Your task to perform on an android device: Open Google Chrome and open the bookmarks view Image 0: 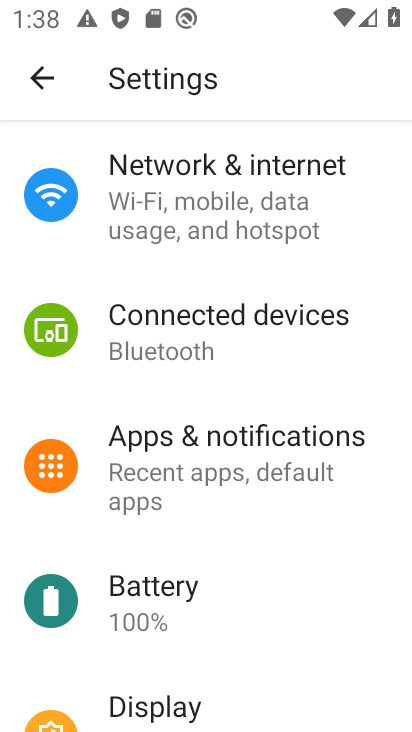
Step 0: press home button
Your task to perform on an android device: Open Google Chrome and open the bookmarks view Image 1: 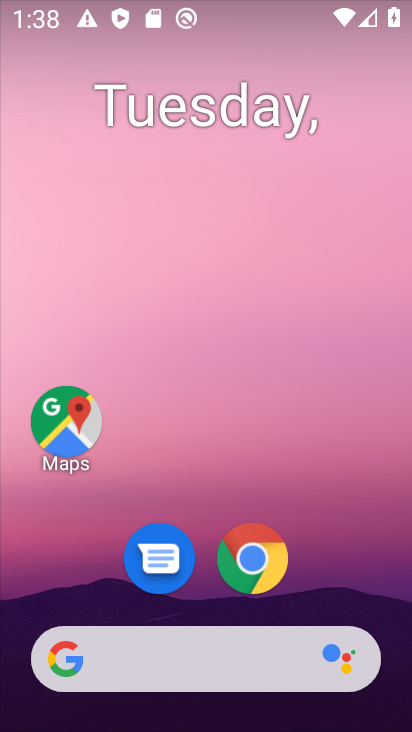
Step 1: click (269, 578)
Your task to perform on an android device: Open Google Chrome and open the bookmarks view Image 2: 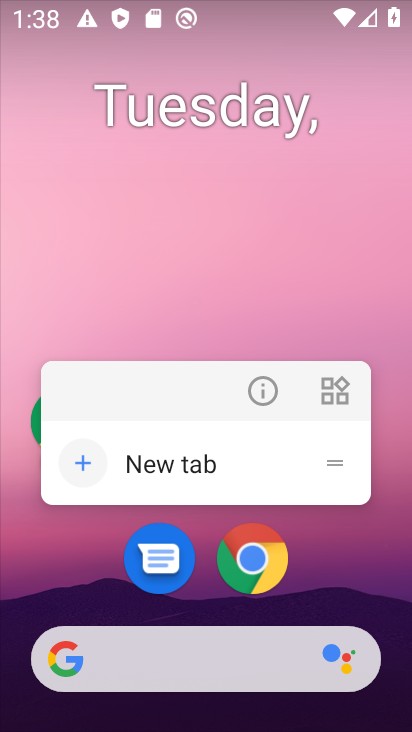
Step 2: click (269, 578)
Your task to perform on an android device: Open Google Chrome and open the bookmarks view Image 3: 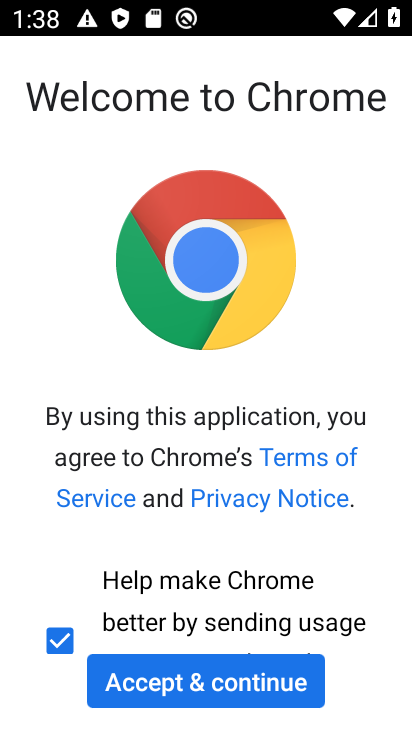
Step 3: click (264, 665)
Your task to perform on an android device: Open Google Chrome and open the bookmarks view Image 4: 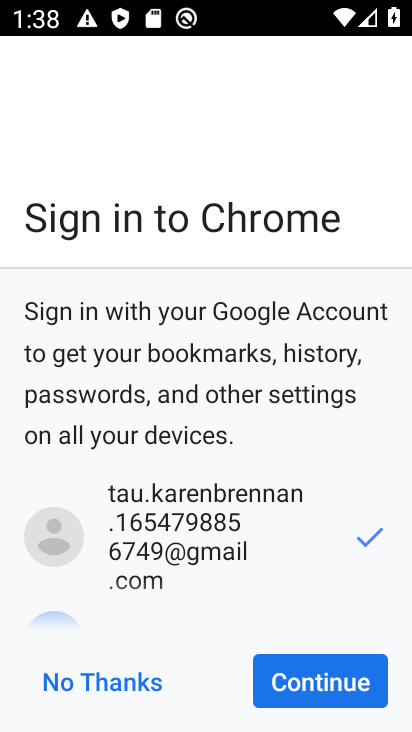
Step 4: click (286, 686)
Your task to perform on an android device: Open Google Chrome and open the bookmarks view Image 5: 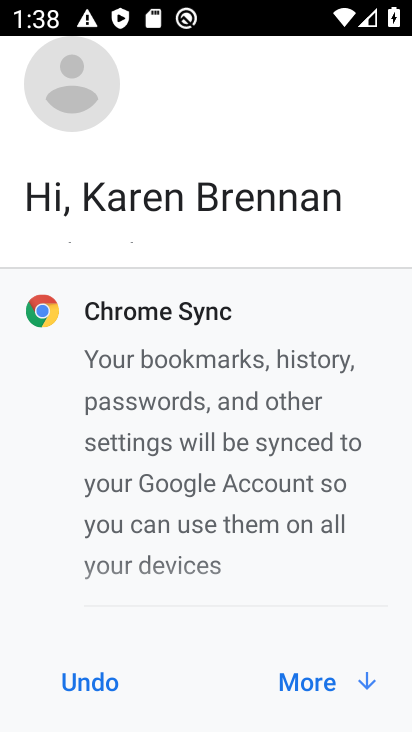
Step 5: click (314, 694)
Your task to perform on an android device: Open Google Chrome and open the bookmarks view Image 6: 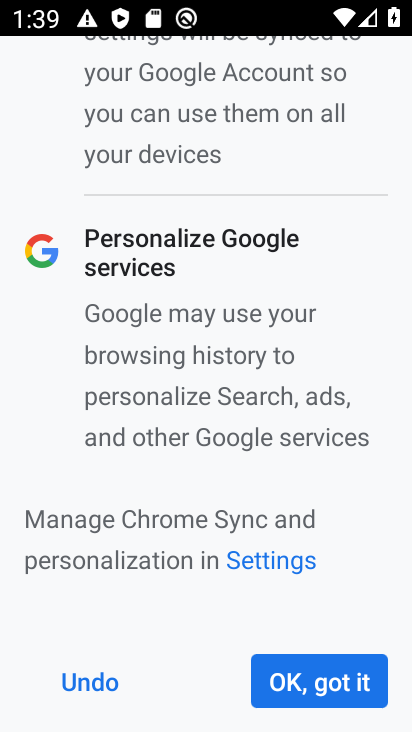
Step 6: click (361, 668)
Your task to perform on an android device: Open Google Chrome and open the bookmarks view Image 7: 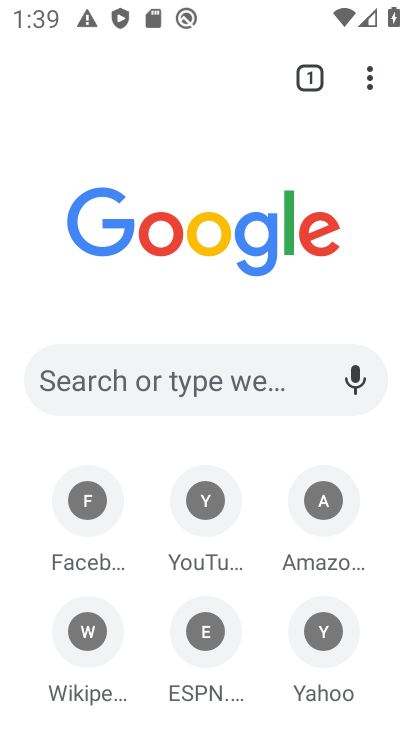
Step 7: click (368, 71)
Your task to perform on an android device: Open Google Chrome and open the bookmarks view Image 8: 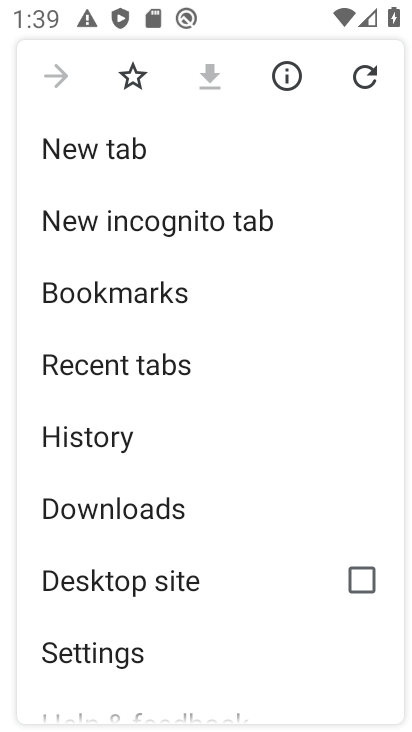
Step 8: click (132, 296)
Your task to perform on an android device: Open Google Chrome and open the bookmarks view Image 9: 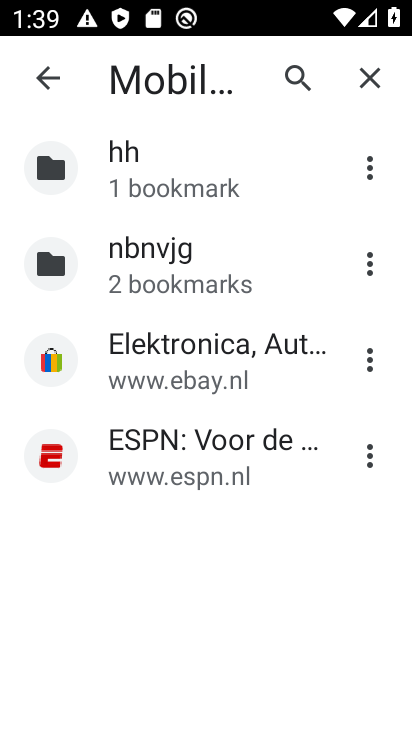
Step 9: task complete